Your task to perform on an android device: check data usage Image 0: 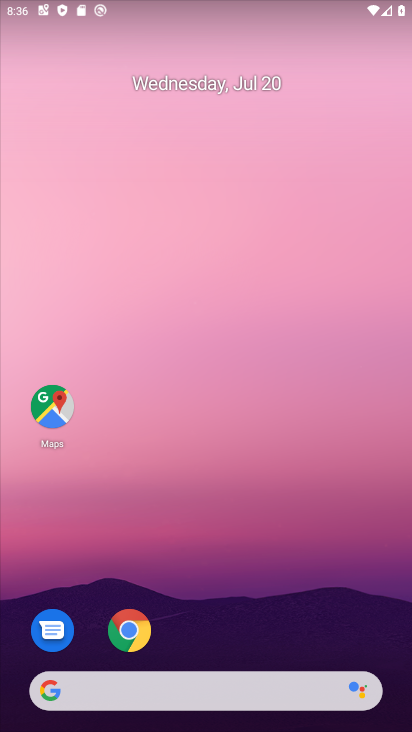
Step 0: drag from (387, 698) to (313, 123)
Your task to perform on an android device: check data usage Image 1: 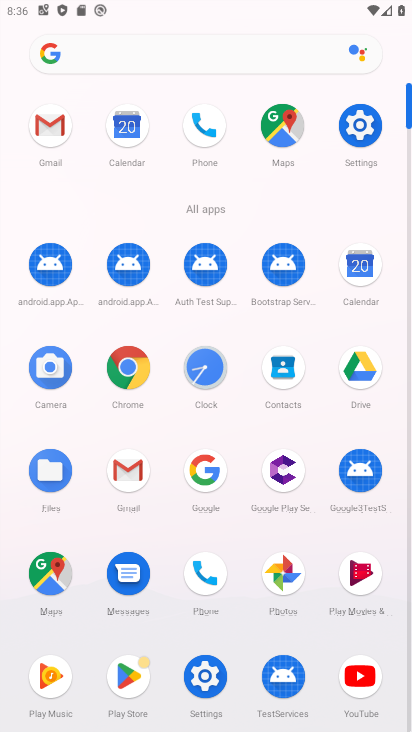
Step 1: click (359, 129)
Your task to perform on an android device: check data usage Image 2: 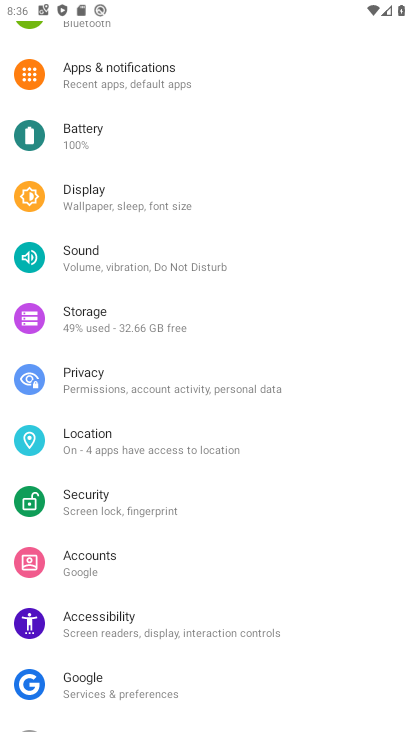
Step 2: drag from (359, 106) to (323, 541)
Your task to perform on an android device: check data usage Image 3: 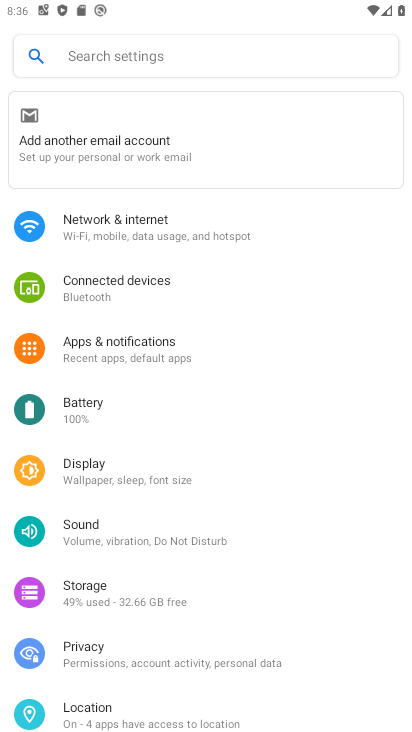
Step 3: click (121, 219)
Your task to perform on an android device: check data usage Image 4: 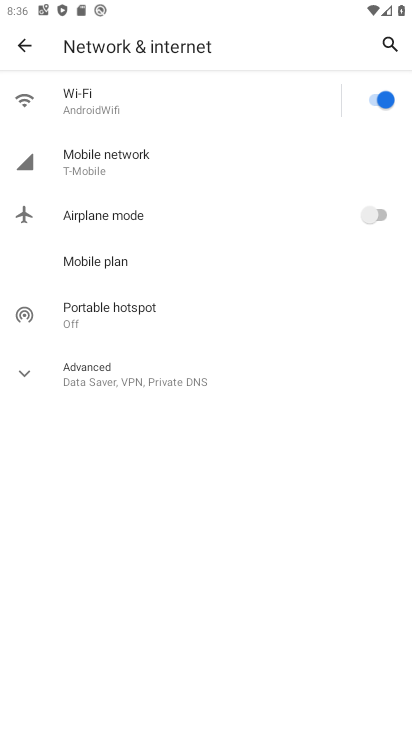
Step 4: click (86, 157)
Your task to perform on an android device: check data usage Image 5: 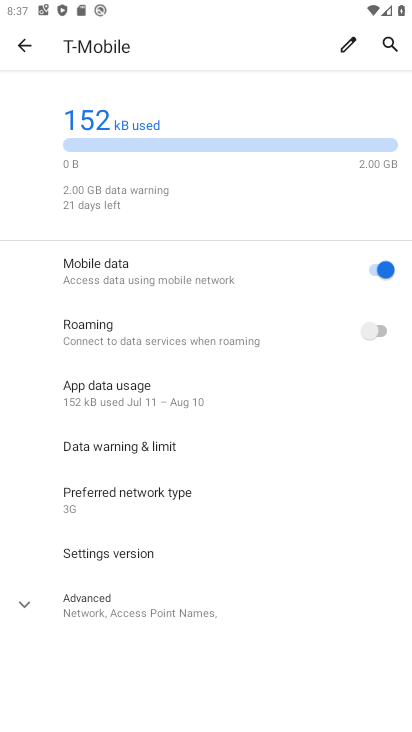
Step 5: task complete